Your task to perform on an android device: turn off javascript in the chrome app Image 0: 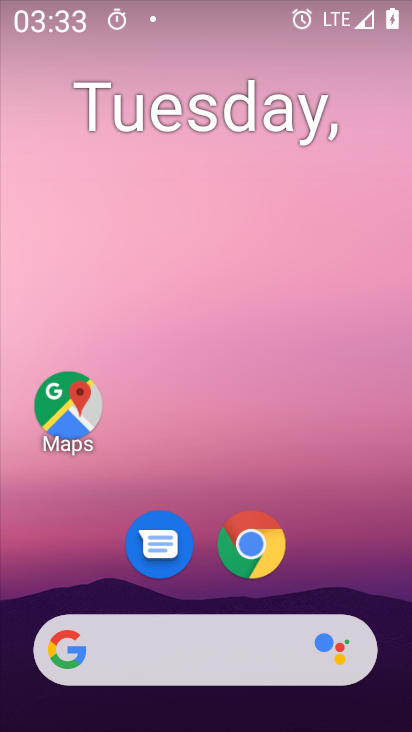
Step 0: drag from (338, 544) to (233, 38)
Your task to perform on an android device: turn off javascript in the chrome app Image 1: 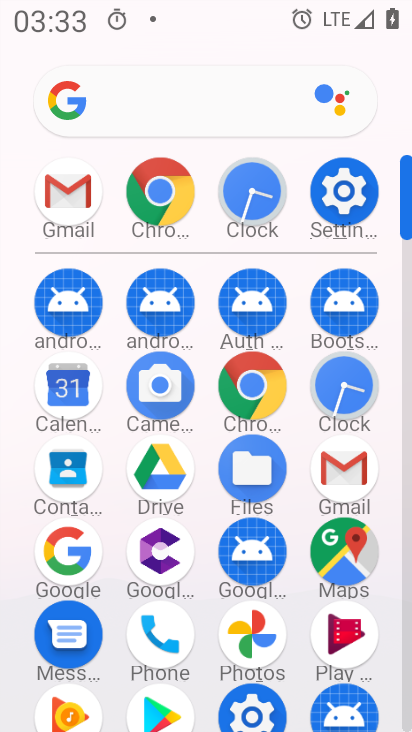
Step 1: drag from (110, 596) to (127, 265)
Your task to perform on an android device: turn off javascript in the chrome app Image 2: 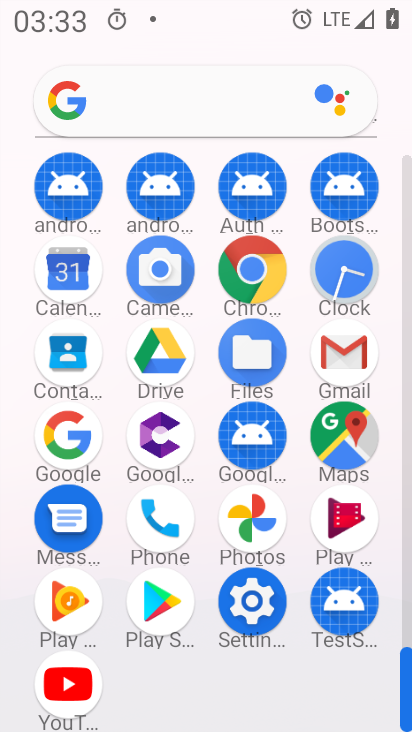
Step 2: click (253, 267)
Your task to perform on an android device: turn off javascript in the chrome app Image 3: 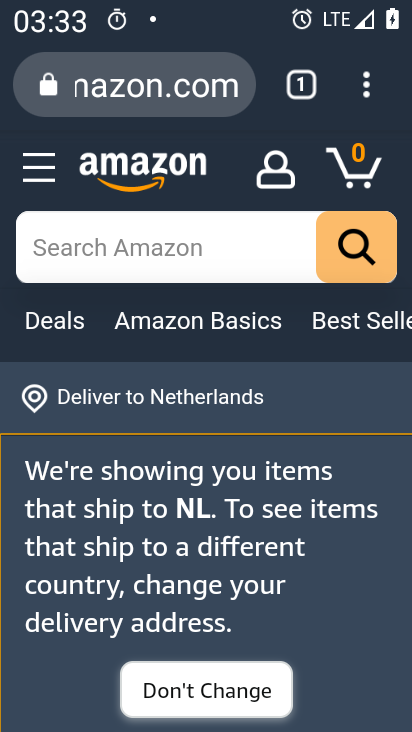
Step 3: drag from (366, 86) to (235, 586)
Your task to perform on an android device: turn off javascript in the chrome app Image 4: 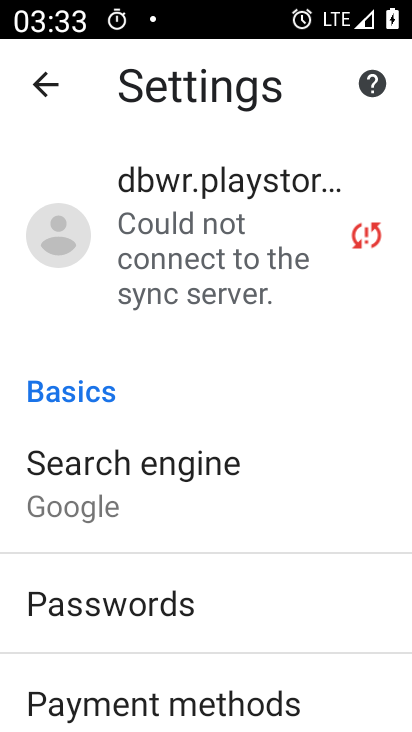
Step 4: drag from (224, 574) to (238, 179)
Your task to perform on an android device: turn off javascript in the chrome app Image 5: 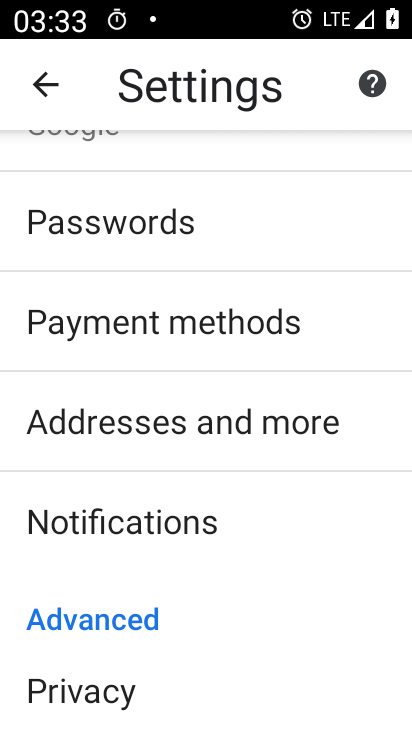
Step 5: drag from (251, 568) to (272, 213)
Your task to perform on an android device: turn off javascript in the chrome app Image 6: 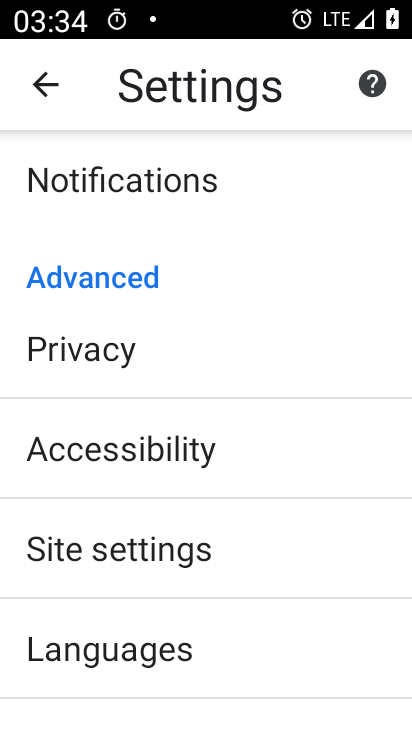
Step 6: drag from (239, 669) to (247, 252)
Your task to perform on an android device: turn off javascript in the chrome app Image 7: 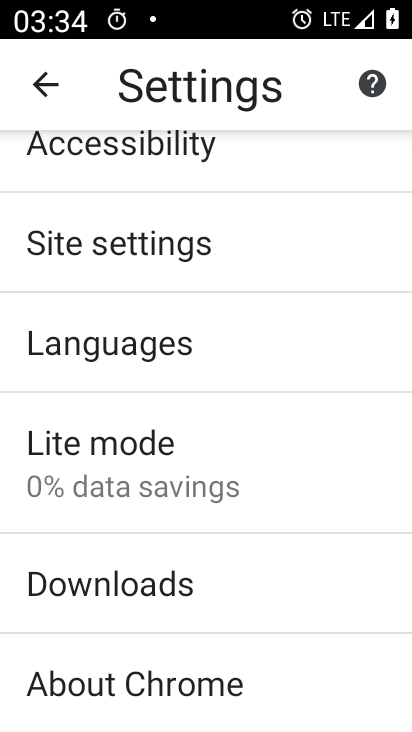
Step 7: click (226, 455)
Your task to perform on an android device: turn off javascript in the chrome app Image 8: 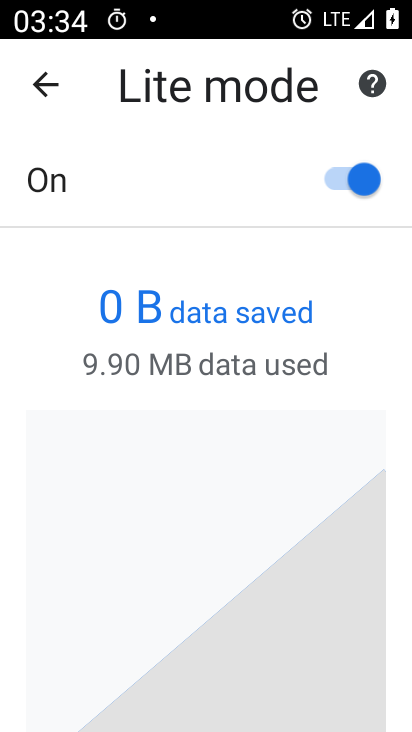
Step 8: click (355, 170)
Your task to perform on an android device: turn off javascript in the chrome app Image 9: 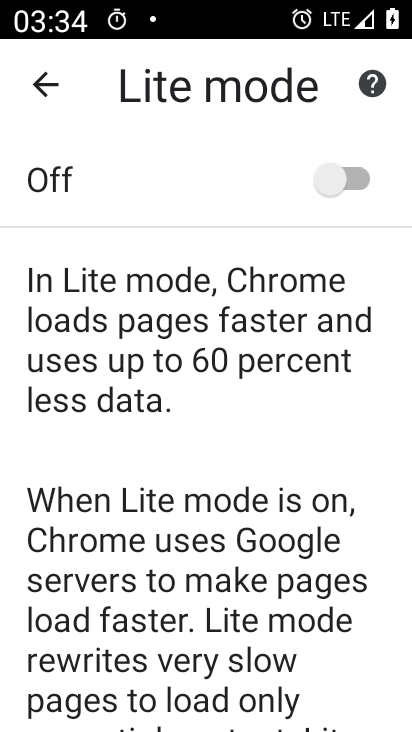
Step 9: task complete